Your task to perform on an android device: toggle location history Image 0: 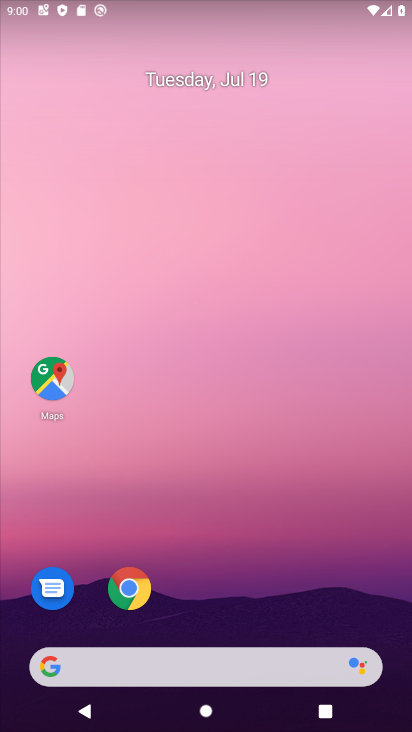
Step 0: click (54, 383)
Your task to perform on an android device: toggle location history Image 1: 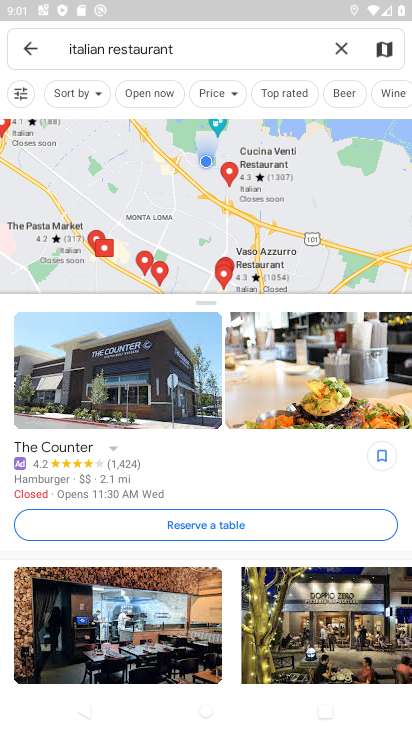
Step 1: click (34, 40)
Your task to perform on an android device: toggle location history Image 2: 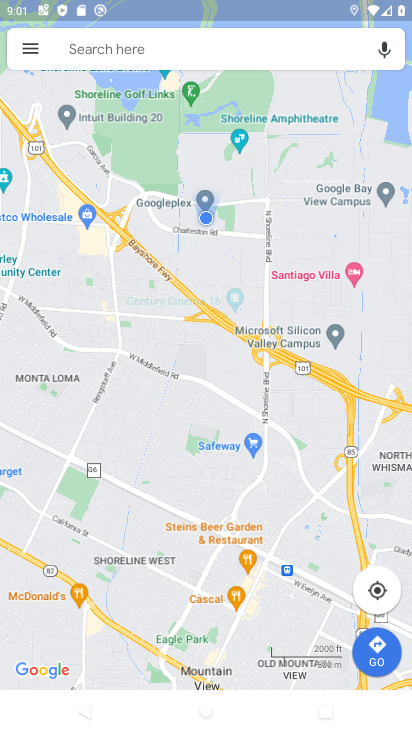
Step 2: click (21, 55)
Your task to perform on an android device: toggle location history Image 3: 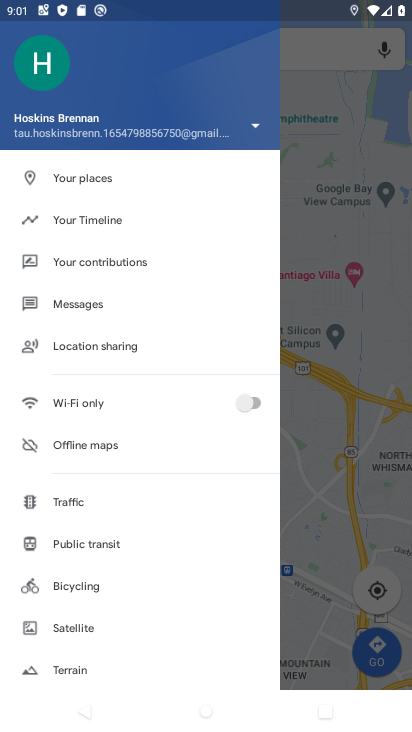
Step 3: click (79, 213)
Your task to perform on an android device: toggle location history Image 4: 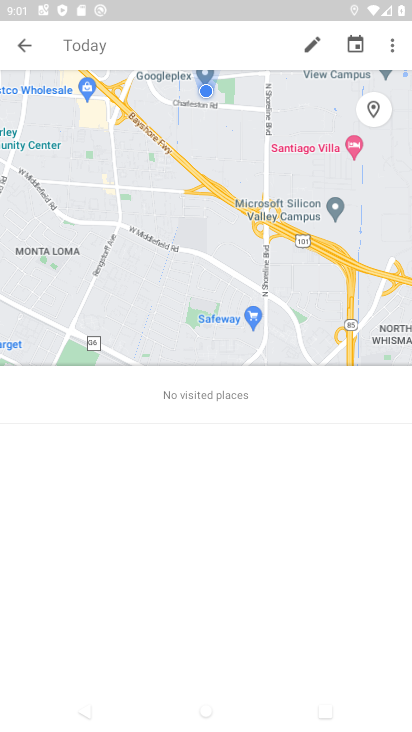
Step 4: click (389, 44)
Your task to perform on an android device: toggle location history Image 5: 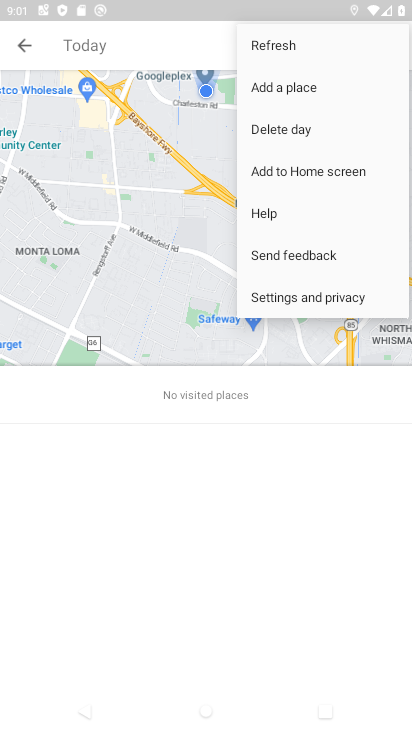
Step 5: click (330, 295)
Your task to perform on an android device: toggle location history Image 6: 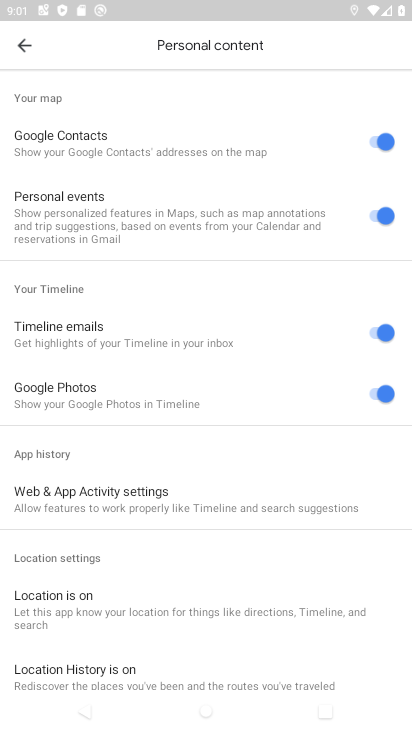
Step 6: drag from (240, 588) to (203, 300)
Your task to perform on an android device: toggle location history Image 7: 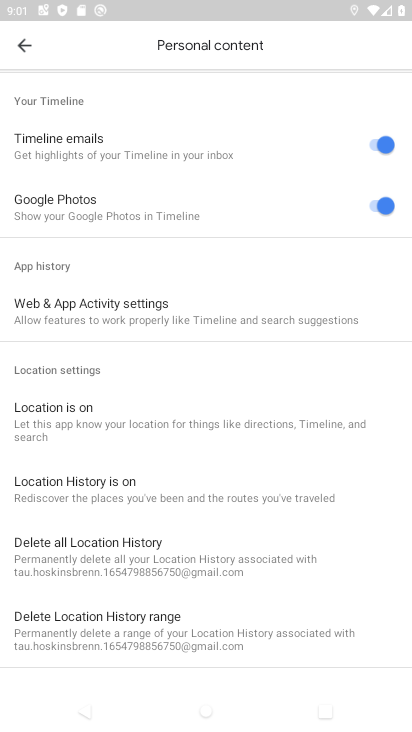
Step 7: click (97, 482)
Your task to perform on an android device: toggle location history Image 8: 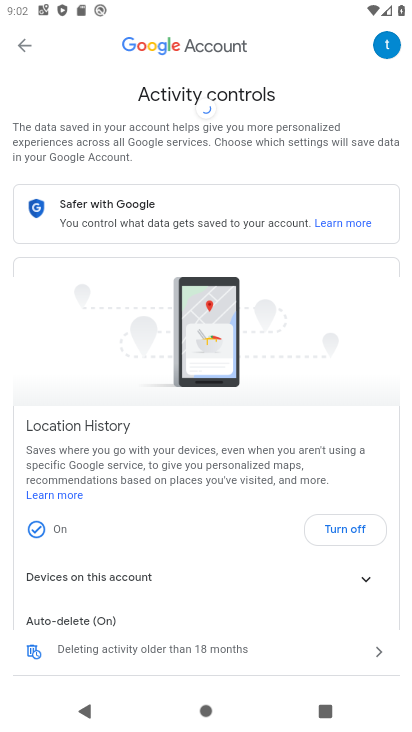
Step 8: click (352, 527)
Your task to perform on an android device: toggle location history Image 9: 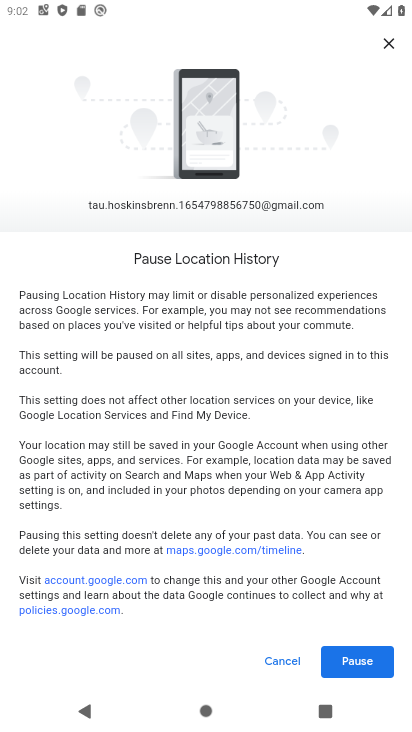
Step 9: click (353, 668)
Your task to perform on an android device: toggle location history Image 10: 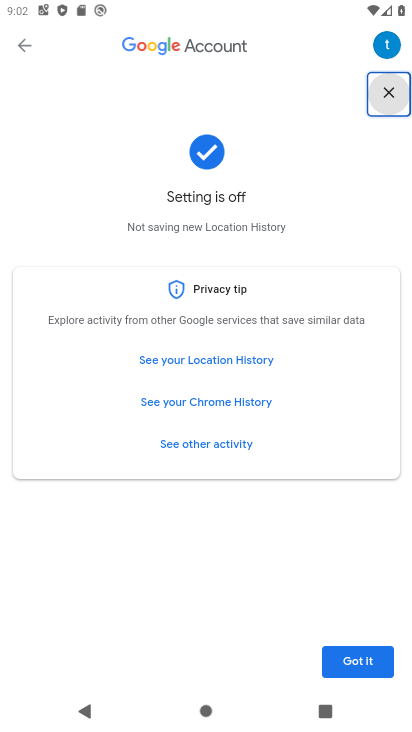
Step 10: click (353, 661)
Your task to perform on an android device: toggle location history Image 11: 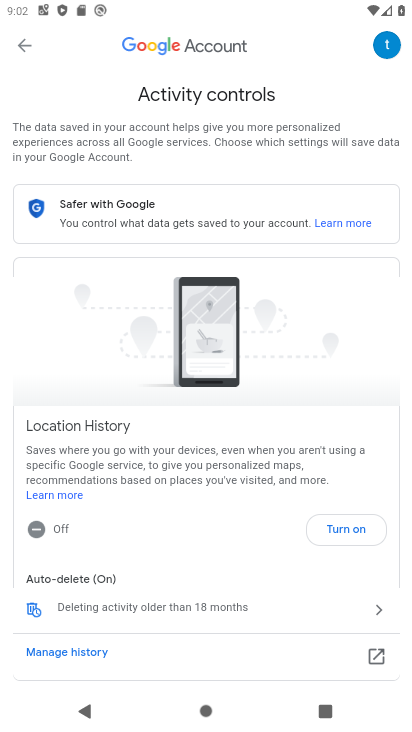
Step 11: task complete